Your task to perform on an android device: check android version Image 0: 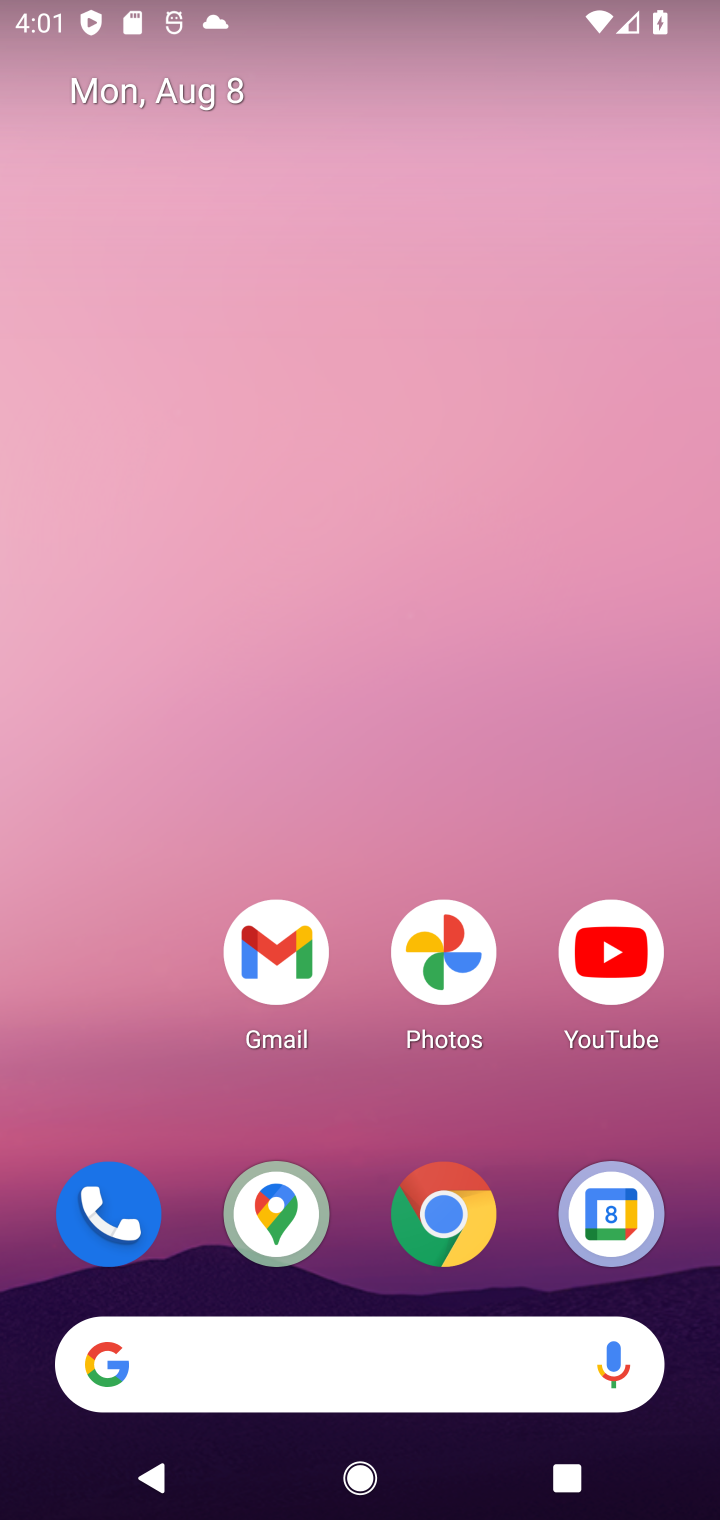
Step 0: drag from (365, 975) to (366, 311)
Your task to perform on an android device: check android version Image 1: 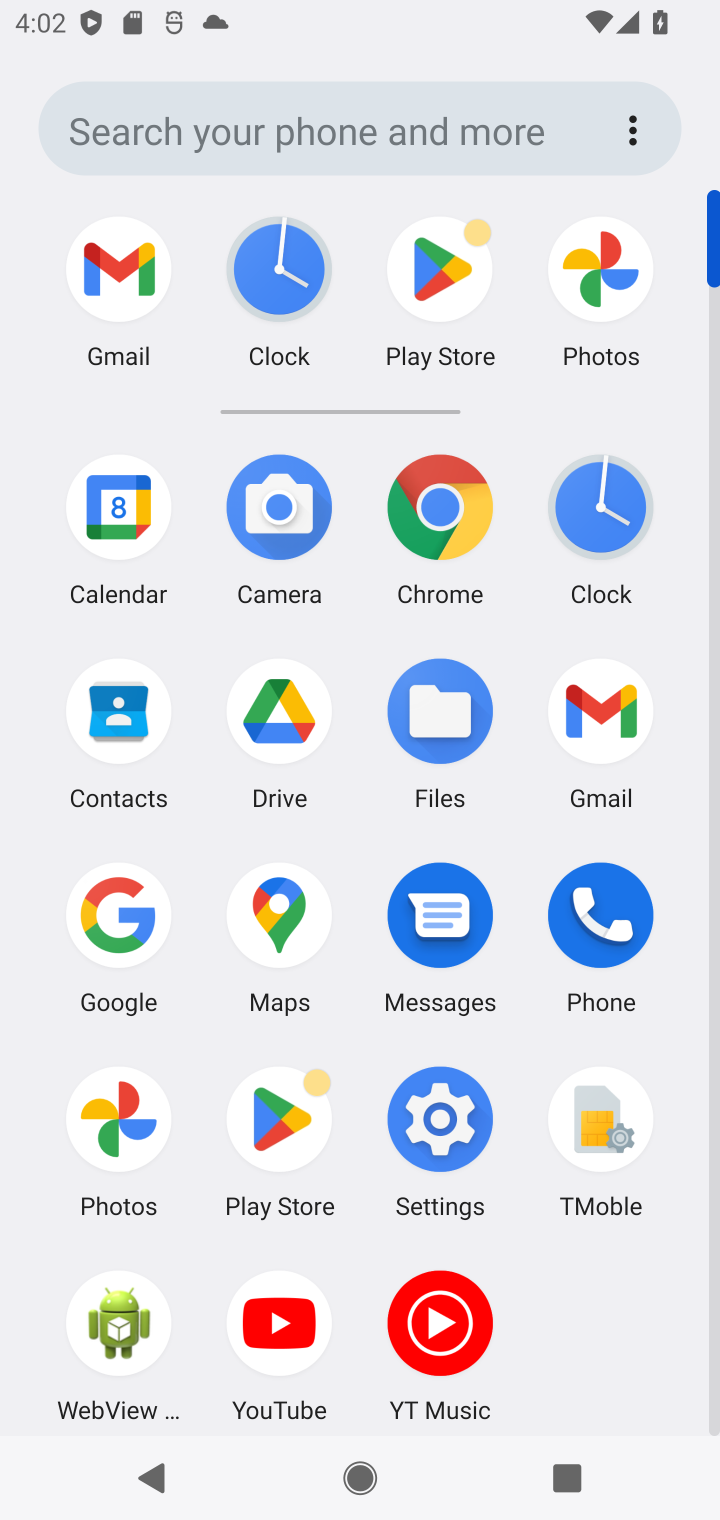
Step 1: click (448, 1111)
Your task to perform on an android device: check android version Image 2: 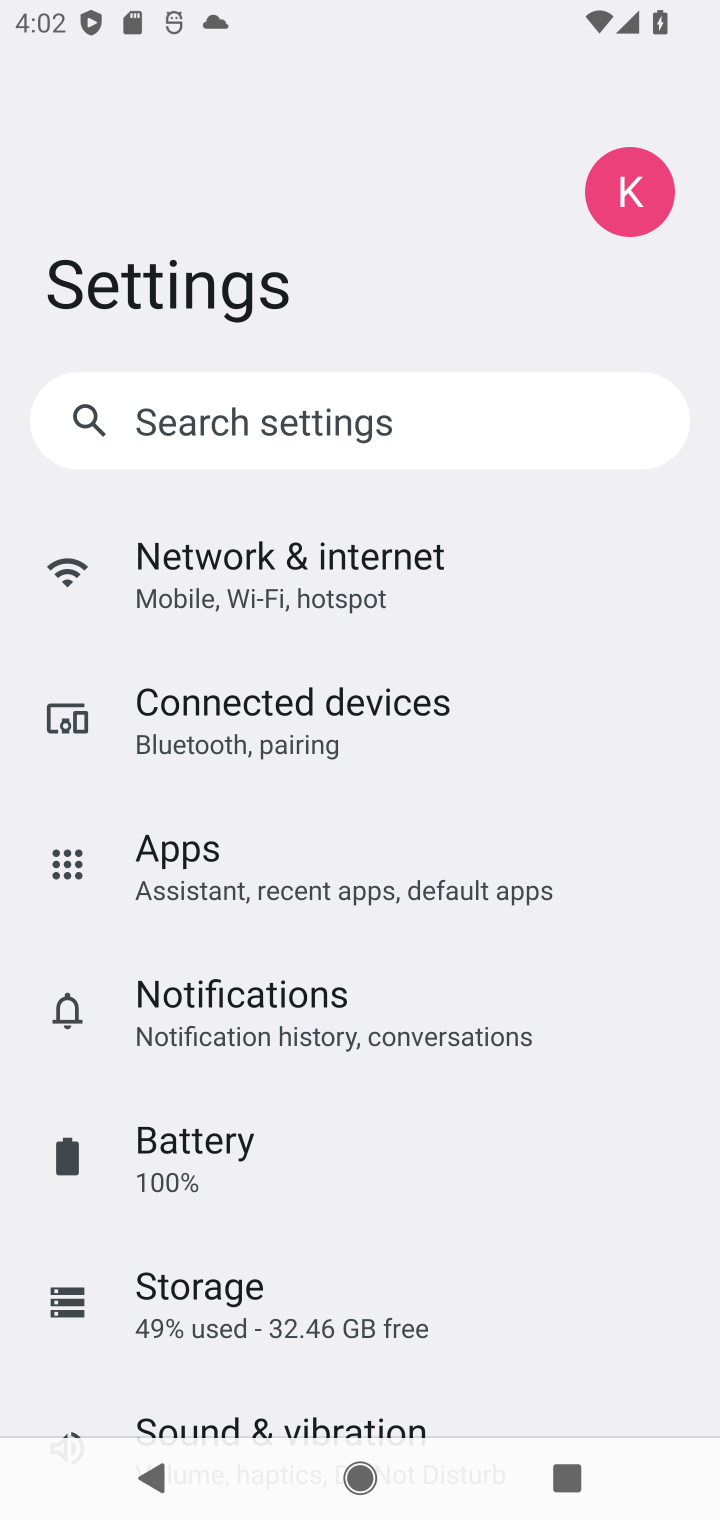
Step 2: drag from (284, 1392) to (272, 903)
Your task to perform on an android device: check android version Image 3: 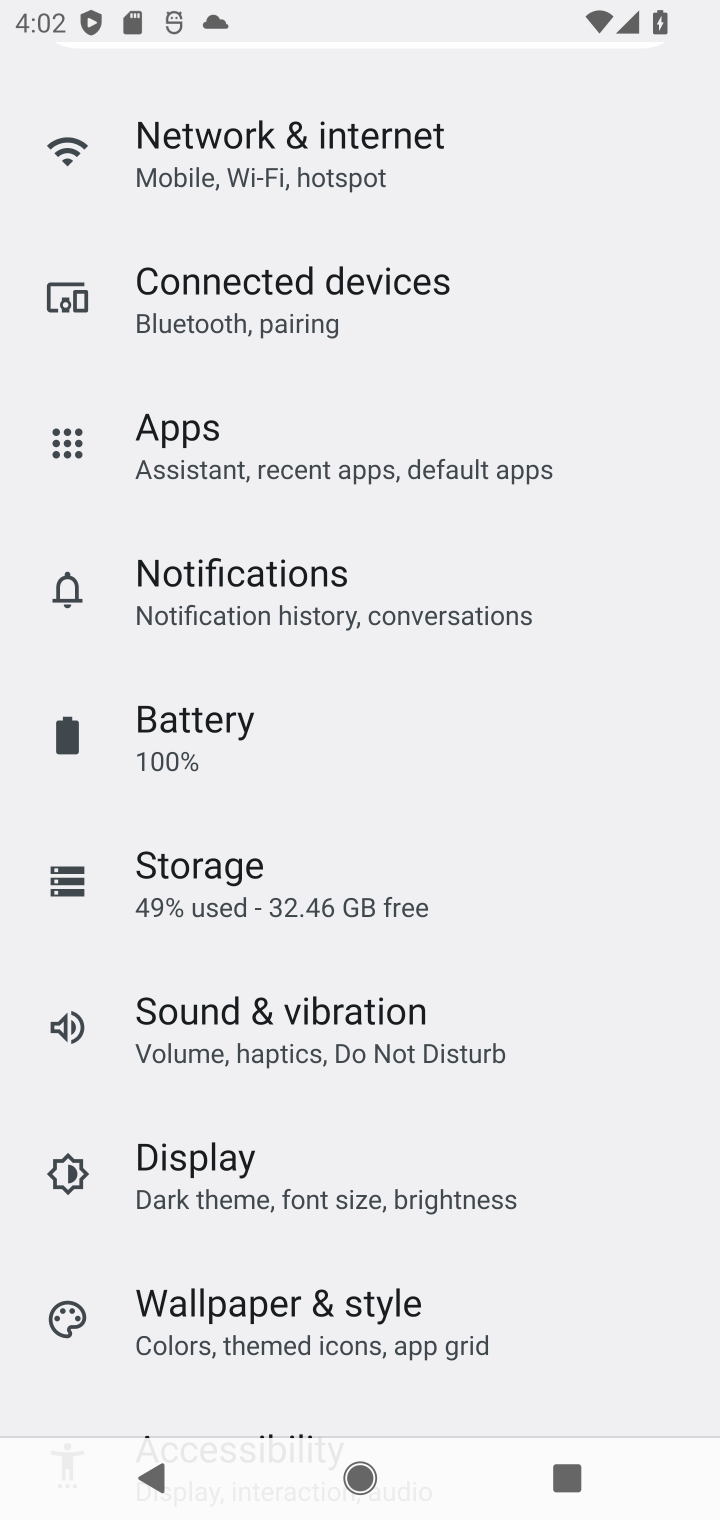
Step 3: drag from (300, 1328) to (300, 552)
Your task to perform on an android device: check android version Image 4: 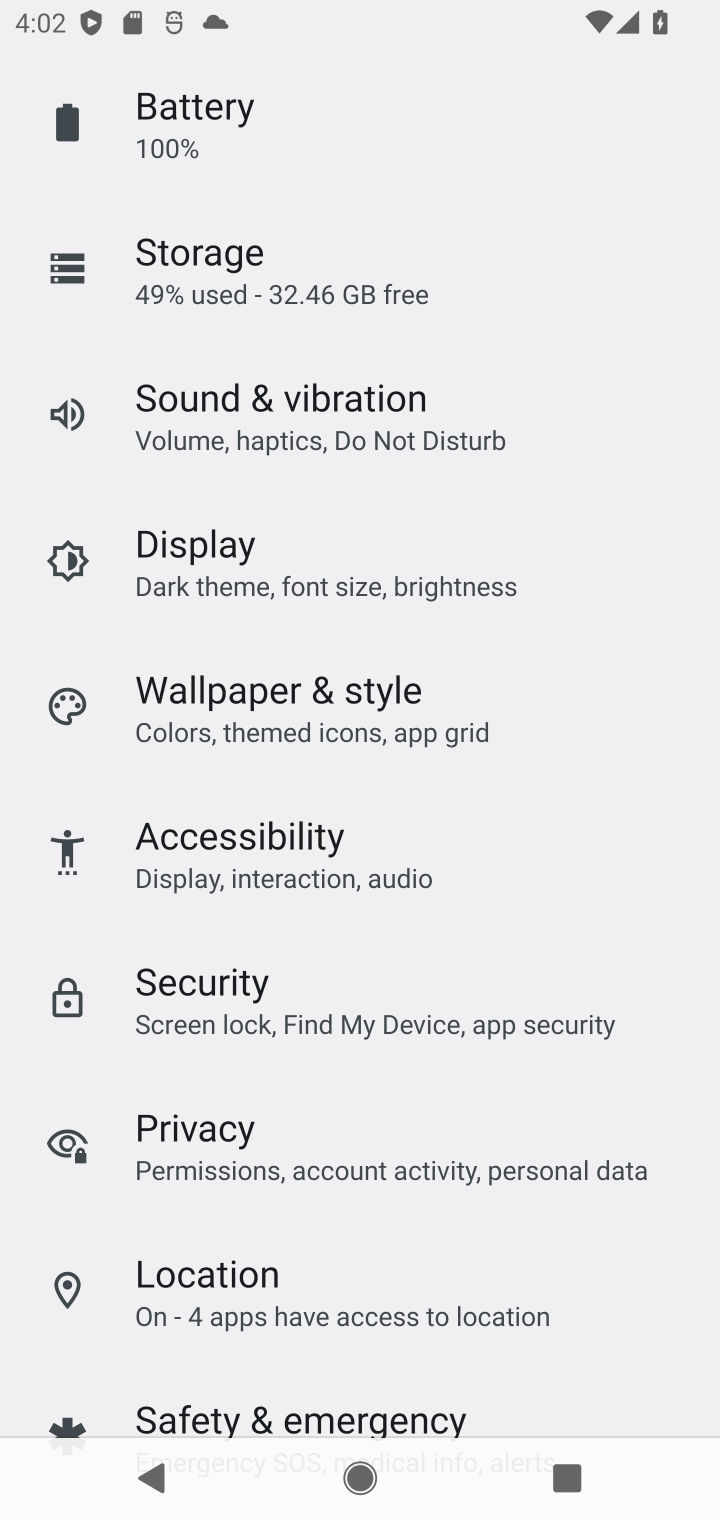
Step 4: drag from (332, 1265) to (336, 584)
Your task to perform on an android device: check android version Image 5: 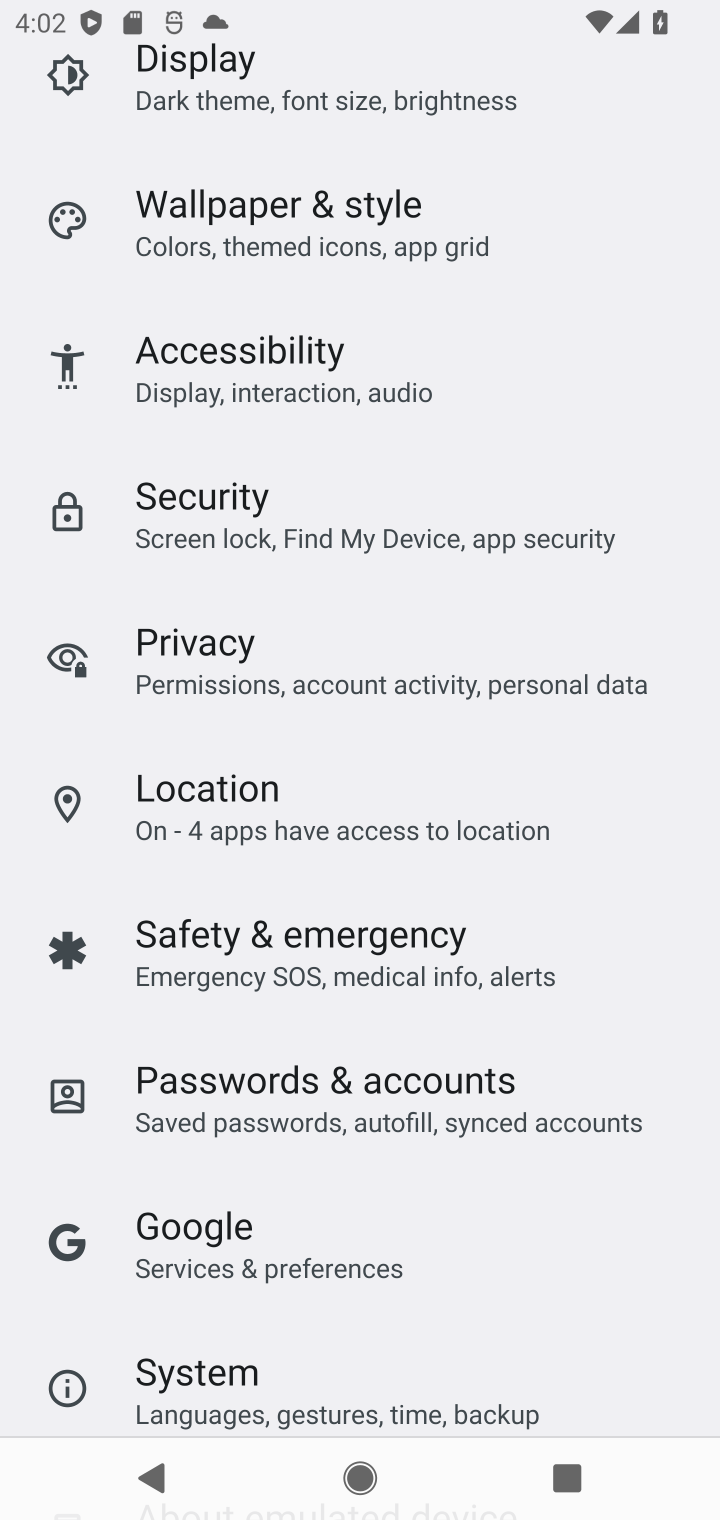
Step 5: drag from (361, 1298) to (358, 305)
Your task to perform on an android device: check android version Image 6: 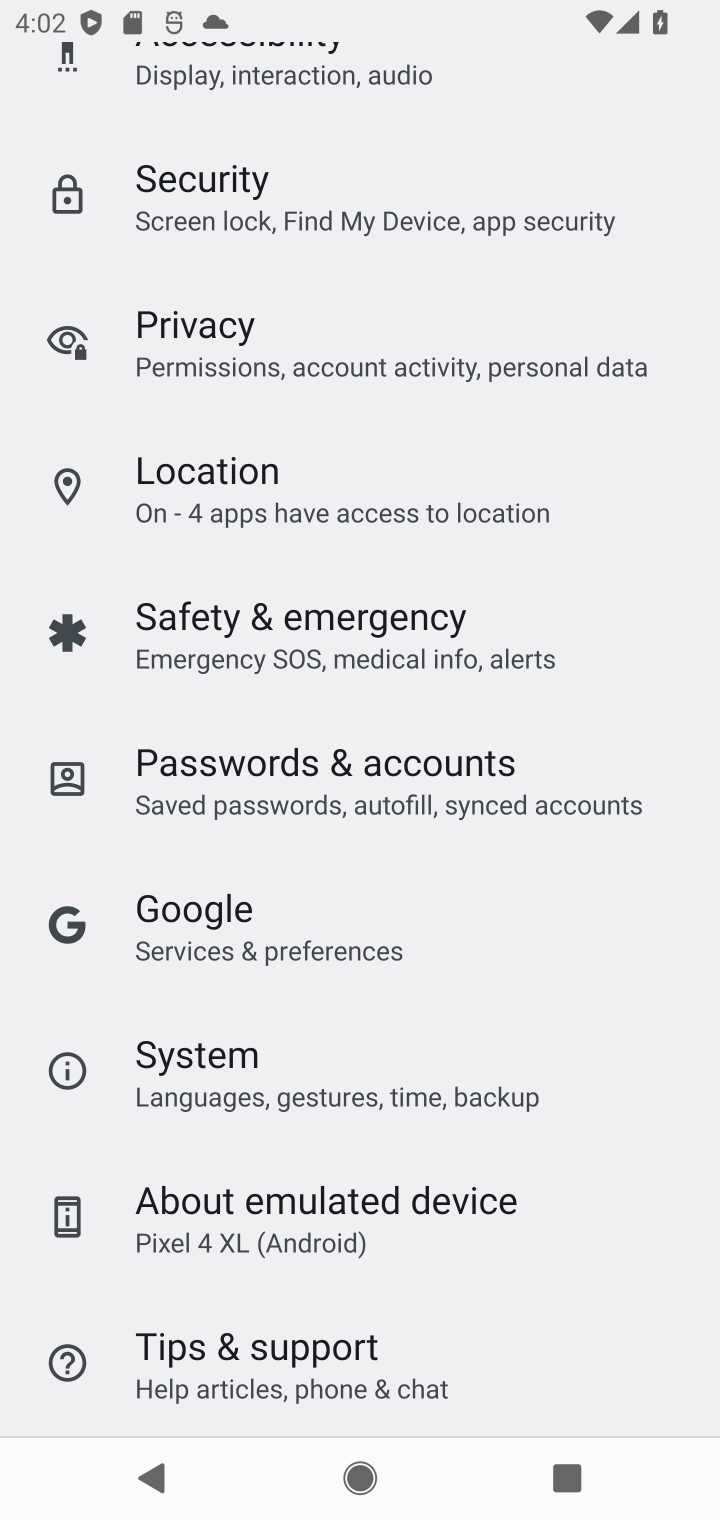
Step 6: drag from (326, 1321) to (337, 752)
Your task to perform on an android device: check android version Image 7: 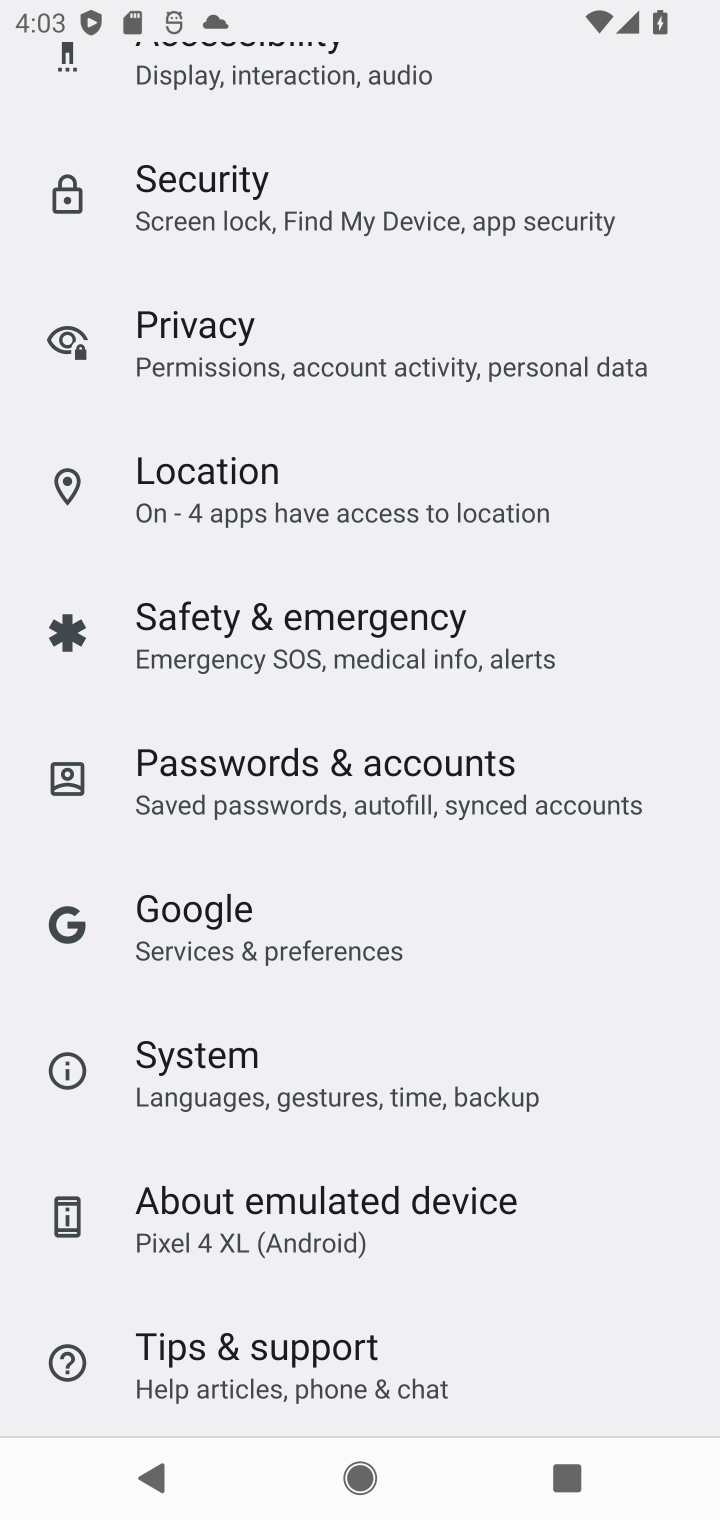
Step 7: click (326, 1213)
Your task to perform on an android device: check android version Image 8: 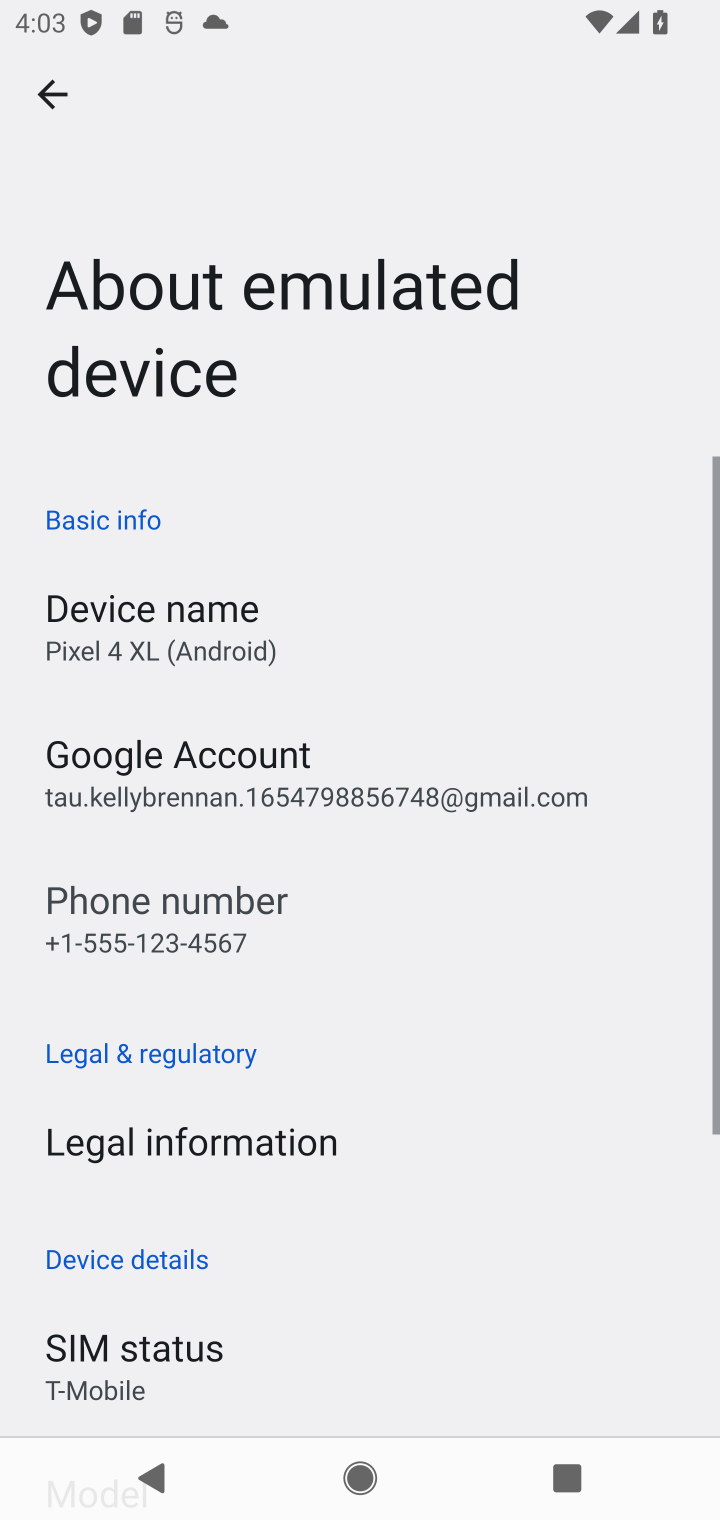
Step 8: drag from (312, 1307) to (340, 492)
Your task to perform on an android device: check android version Image 9: 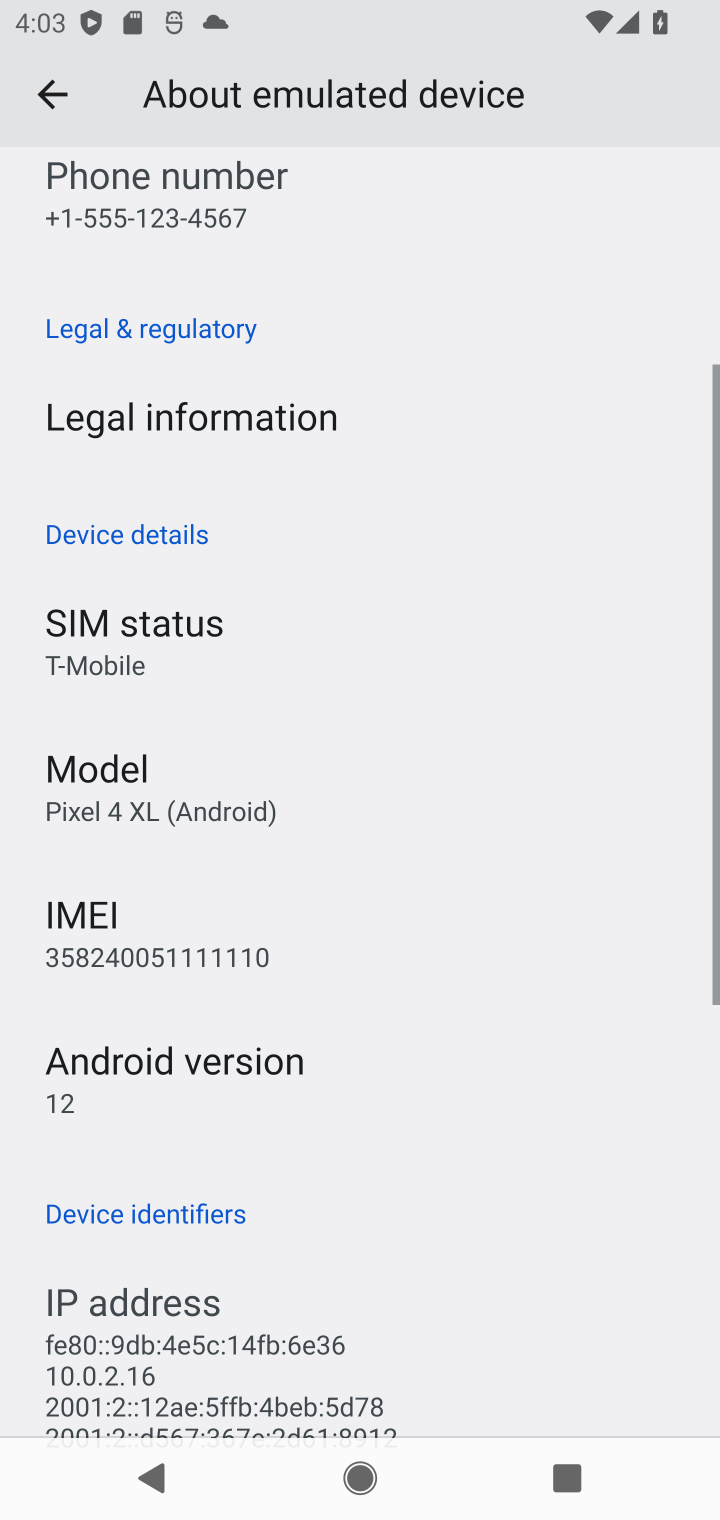
Step 9: click (95, 1050)
Your task to perform on an android device: check android version Image 10: 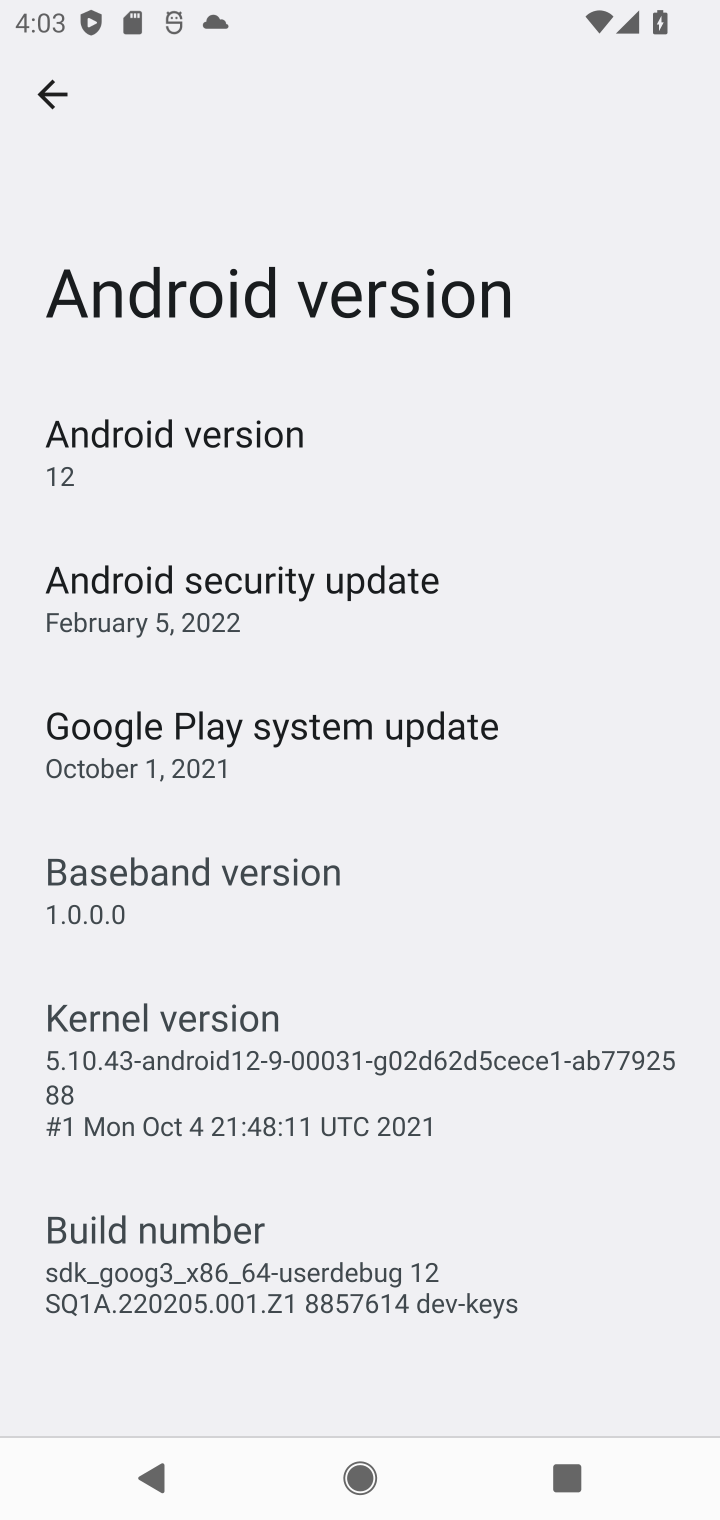
Step 10: task complete